Your task to perform on an android device: Clear the shopping cart on ebay.com. Search for dell xps on ebay.com, select the first entry, and add it to the cart. Image 0: 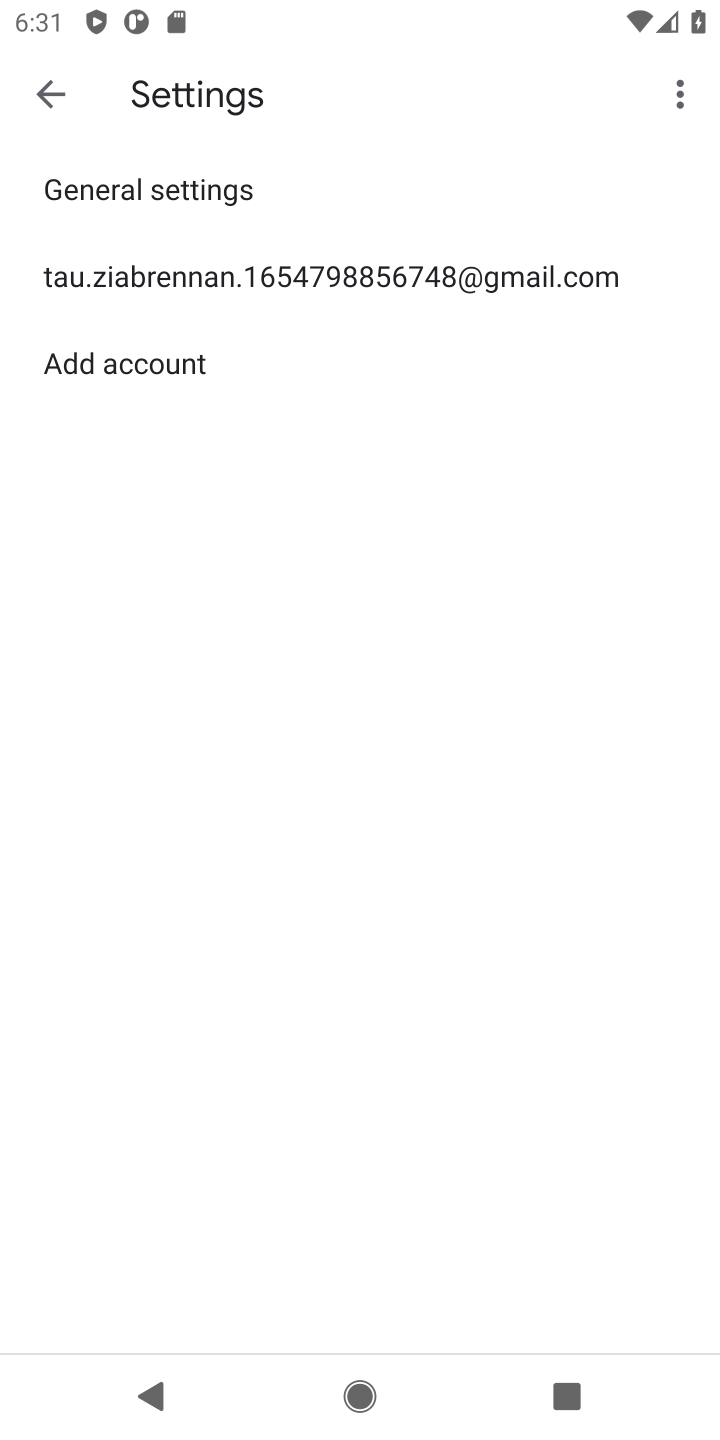
Step 0: press home button
Your task to perform on an android device: Clear the shopping cart on ebay.com. Search for dell xps on ebay.com, select the first entry, and add it to the cart. Image 1: 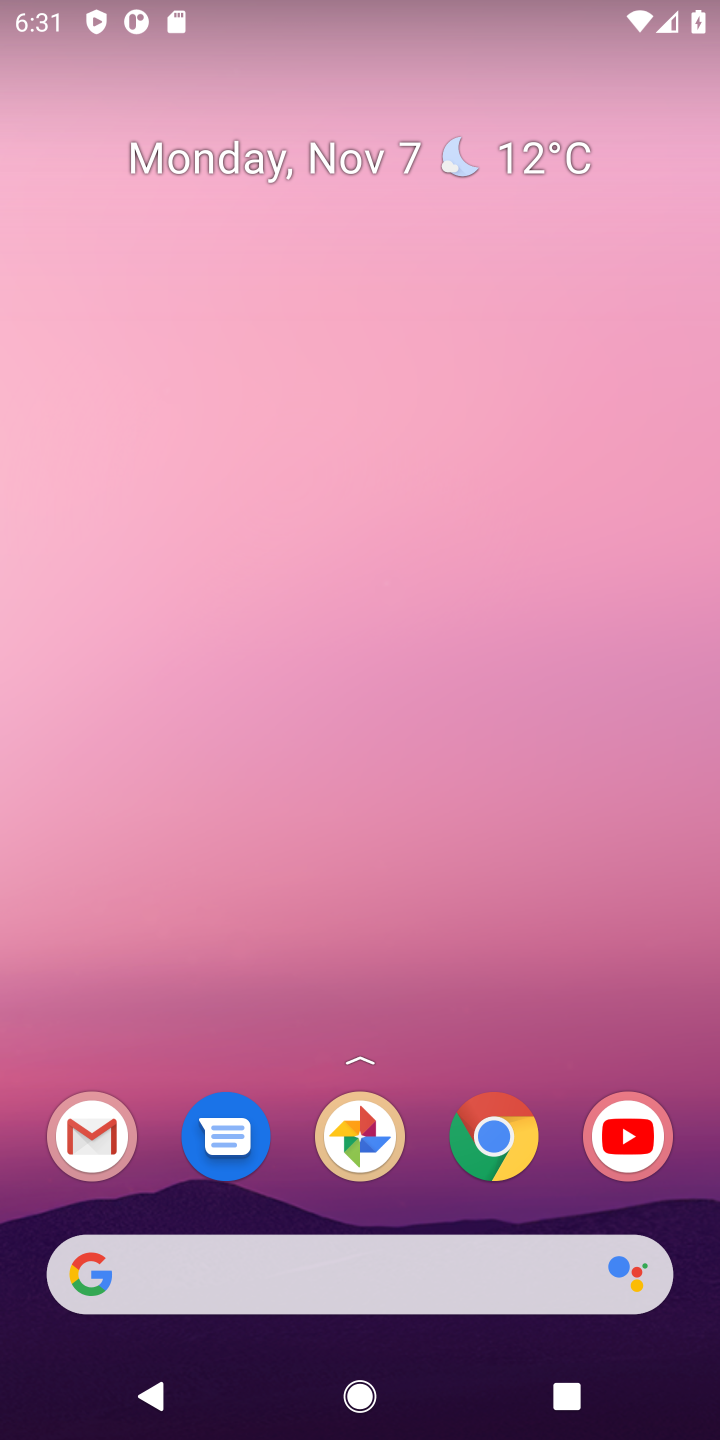
Step 1: click (253, 1267)
Your task to perform on an android device: Clear the shopping cart on ebay.com. Search for dell xps on ebay.com, select the first entry, and add it to the cart. Image 2: 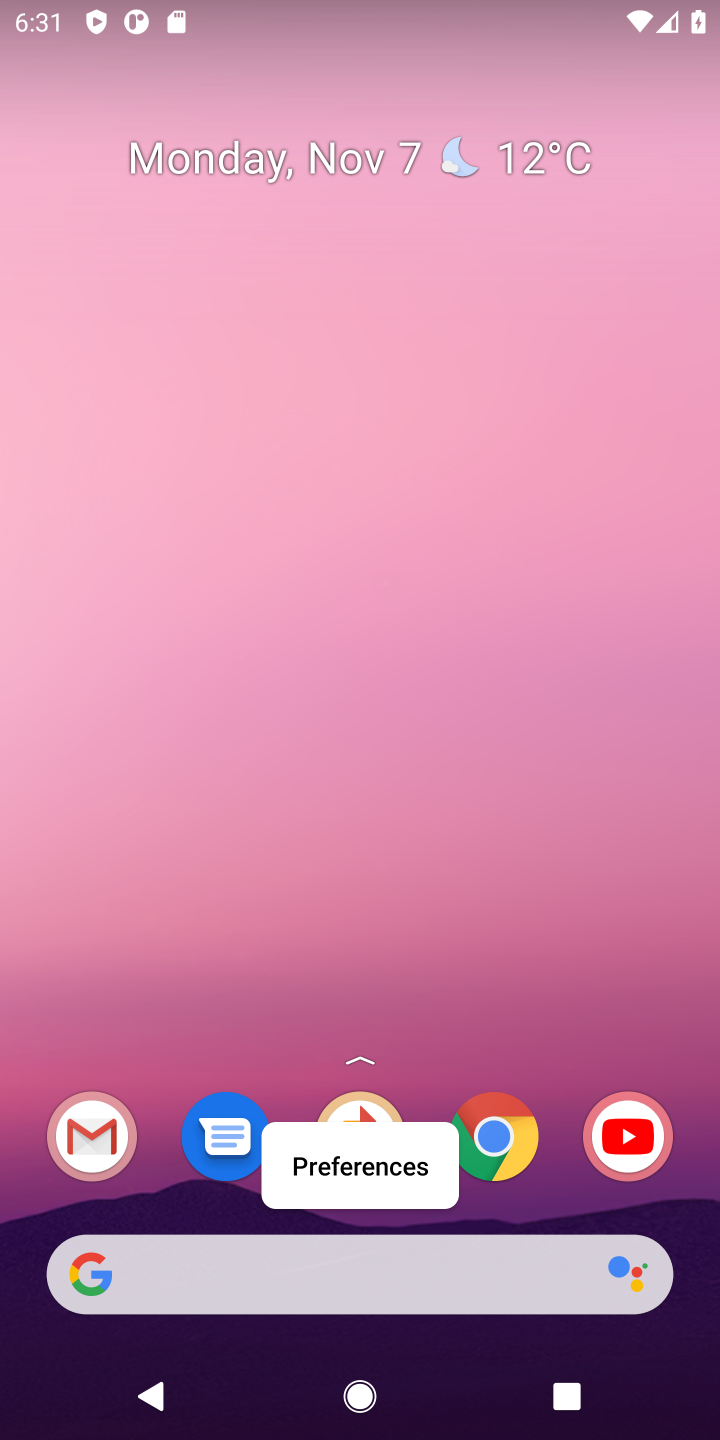
Step 2: click (214, 1271)
Your task to perform on an android device: Clear the shopping cart on ebay.com. Search for dell xps on ebay.com, select the first entry, and add it to the cart. Image 3: 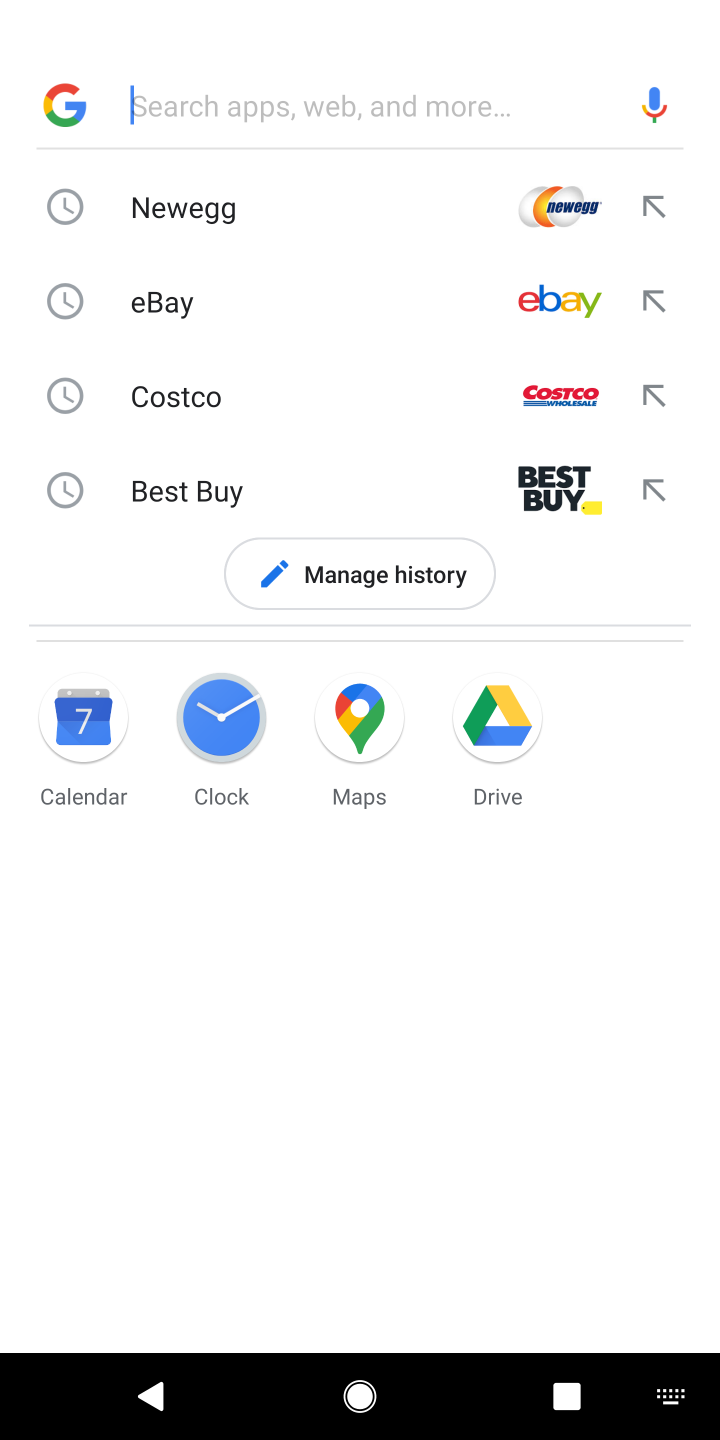
Step 3: type "ebay"
Your task to perform on an android device: Clear the shopping cart on ebay.com. Search for dell xps on ebay.com, select the first entry, and add it to the cart. Image 4: 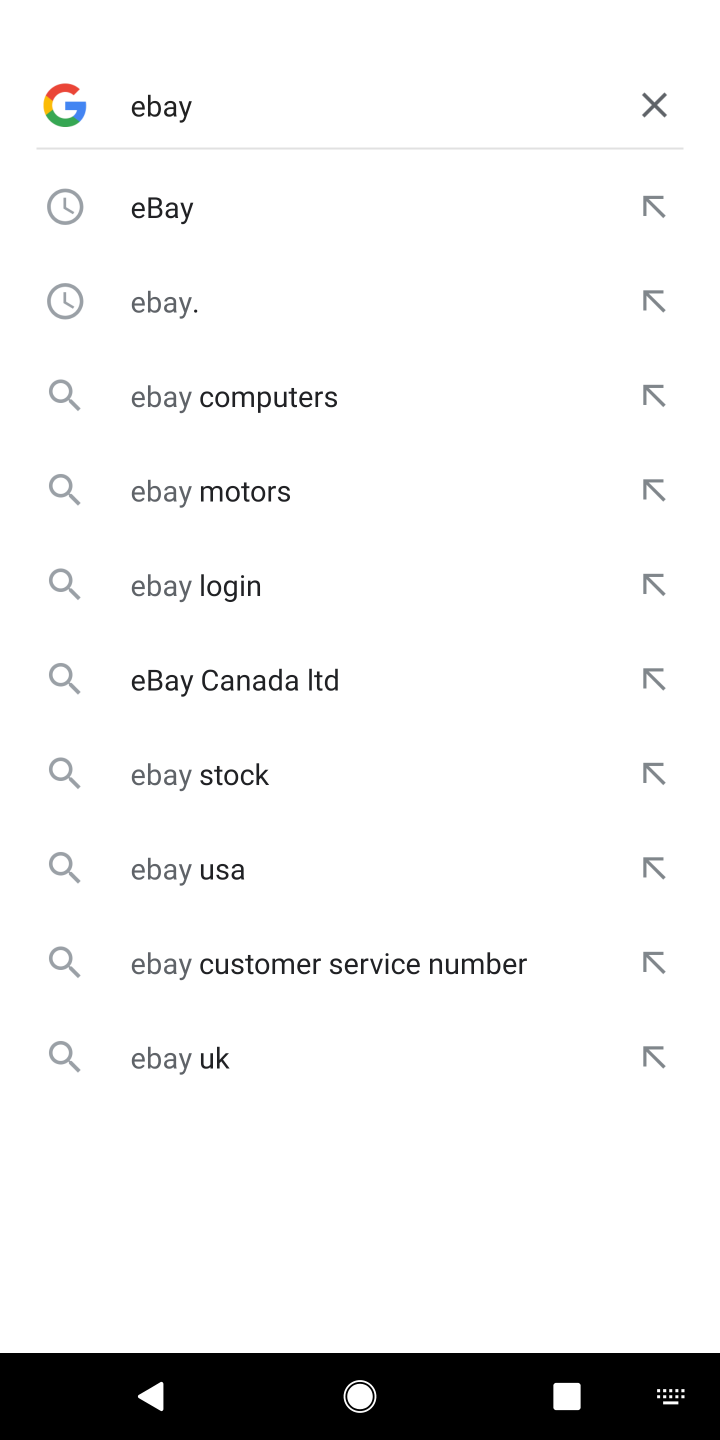
Step 4: type ""
Your task to perform on an android device: Clear the shopping cart on ebay.com. Search for dell xps on ebay.com, select the first entry, and add it to the cart. Image 5: 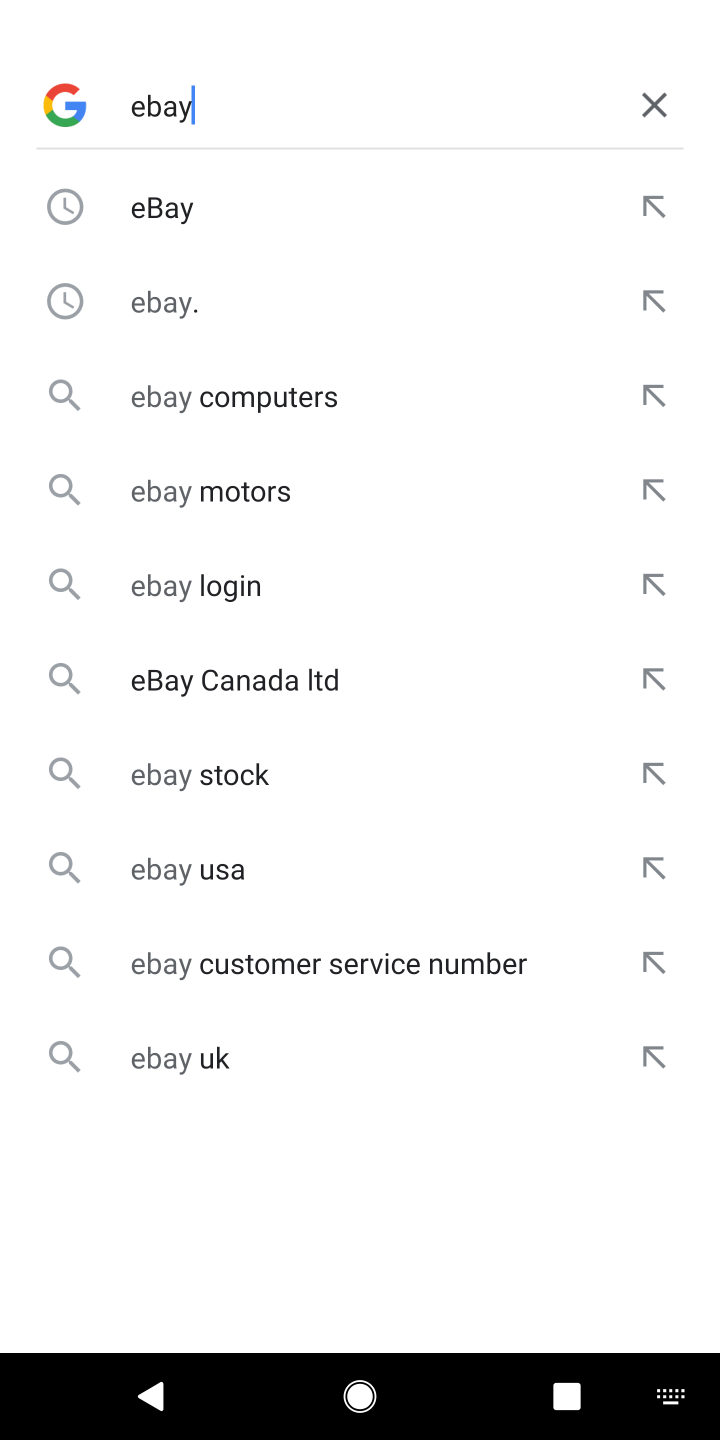
Step 5: click (148, 202)
Your task to perform on an android device: Clear the shopping cart on ebay.com. Search for dell xps on ebay.com, select the first entry, and add it to the cart. Image 6: 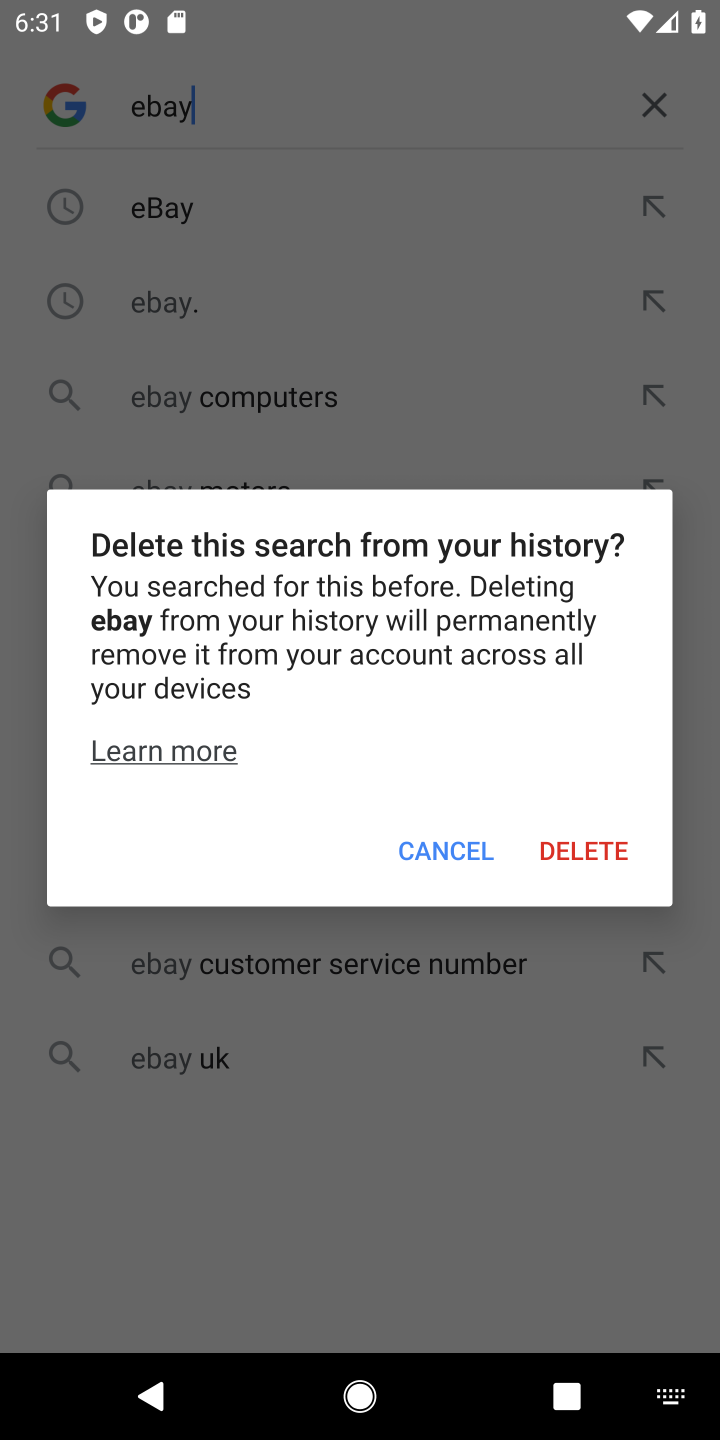
Step 6: click (441, 843)
Your task to perform on an android device: Clear the shopping cart on ebay.com. Search for dell xps on ebay.com, select the first entry, and add it to the cart. Image 7: 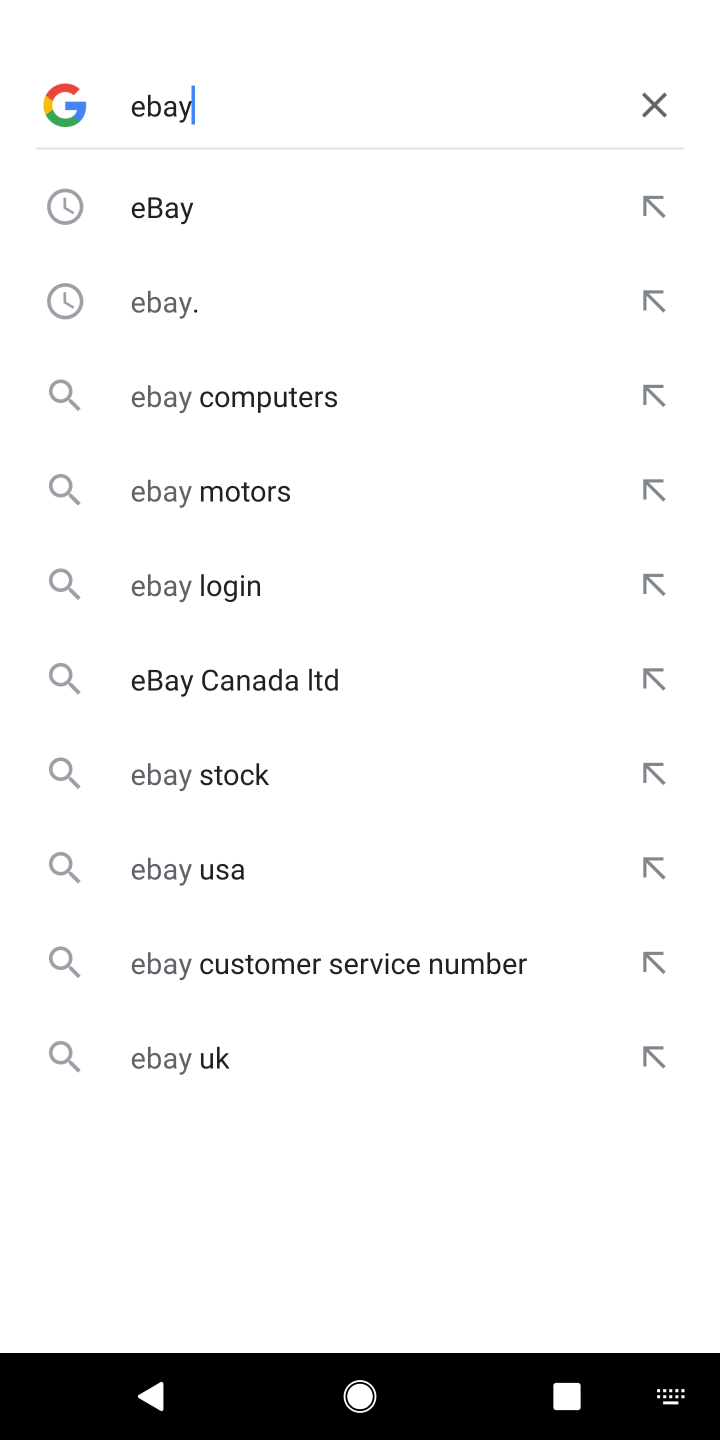
Step 7: click (165, 208)
Your task to perform on an android device: Clear the shopping cart on ebay.com. Search for dell xps on ebay.com, select the first entry, and add it to the cart. Image 8: 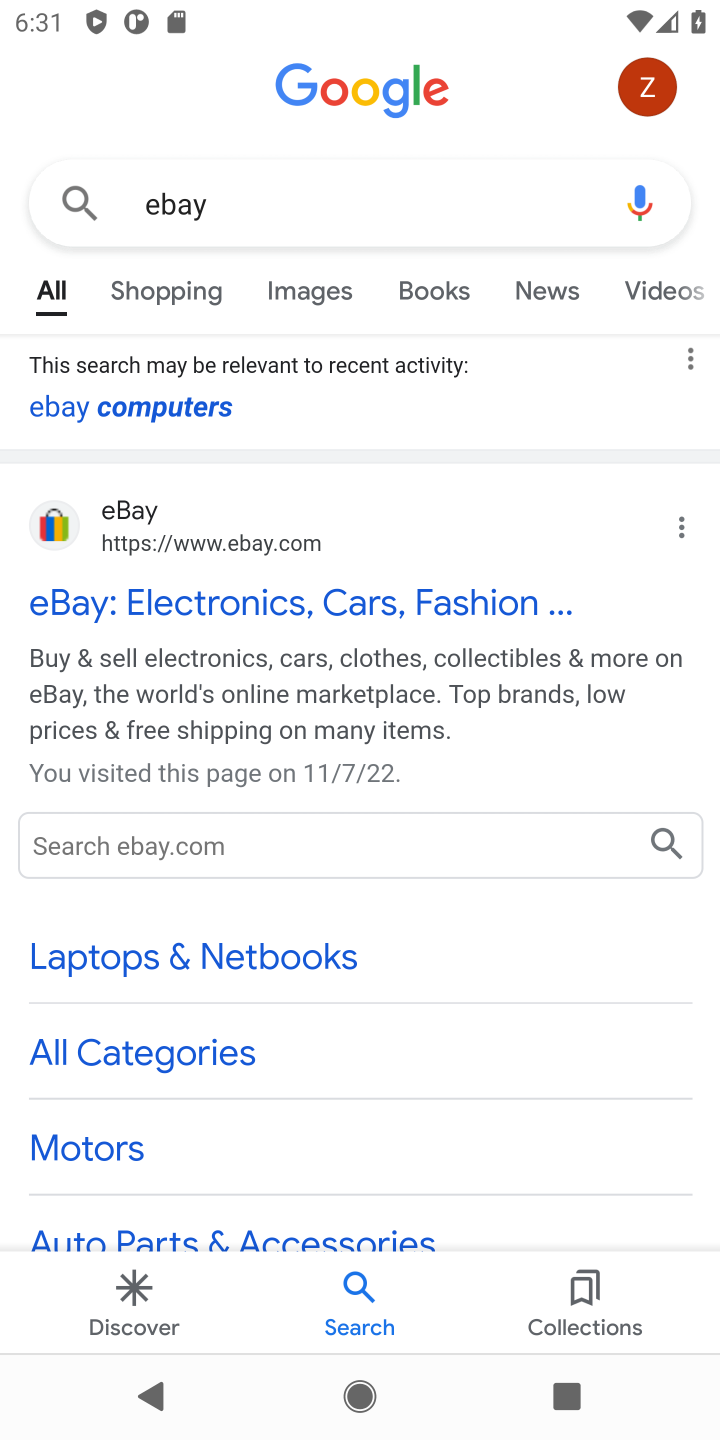
Step 8: click (132, 508)
Your task to perform on an android device: Clear the shopping cart on ebay.com. Search for dell xps on ebay.com, select the first entry, and add it to the cart. Image 9: 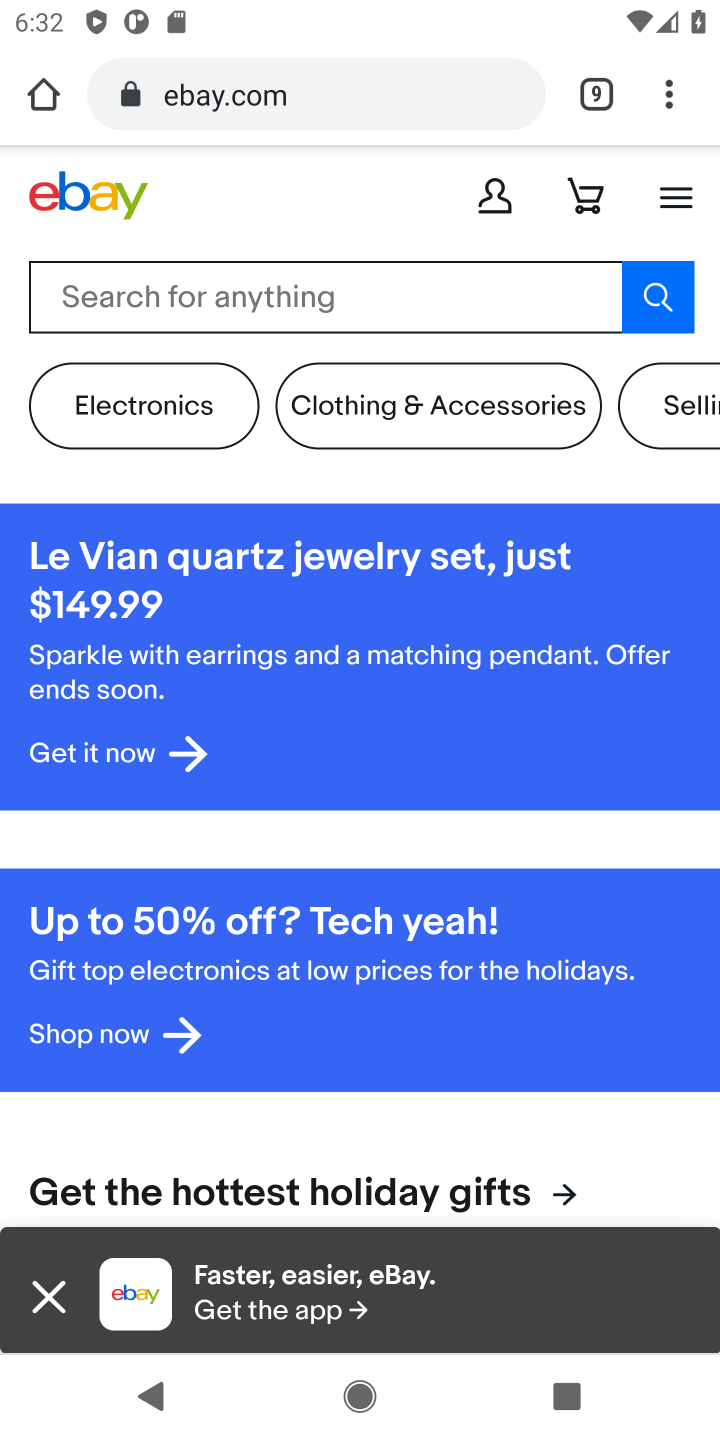
Step 9: click (233, 268)
Your task to perform on an android device: Clear the shopping cart on ebay.com. Search for dell xps on ebay.com, select the first entry, and add it to the cart. Image 10: 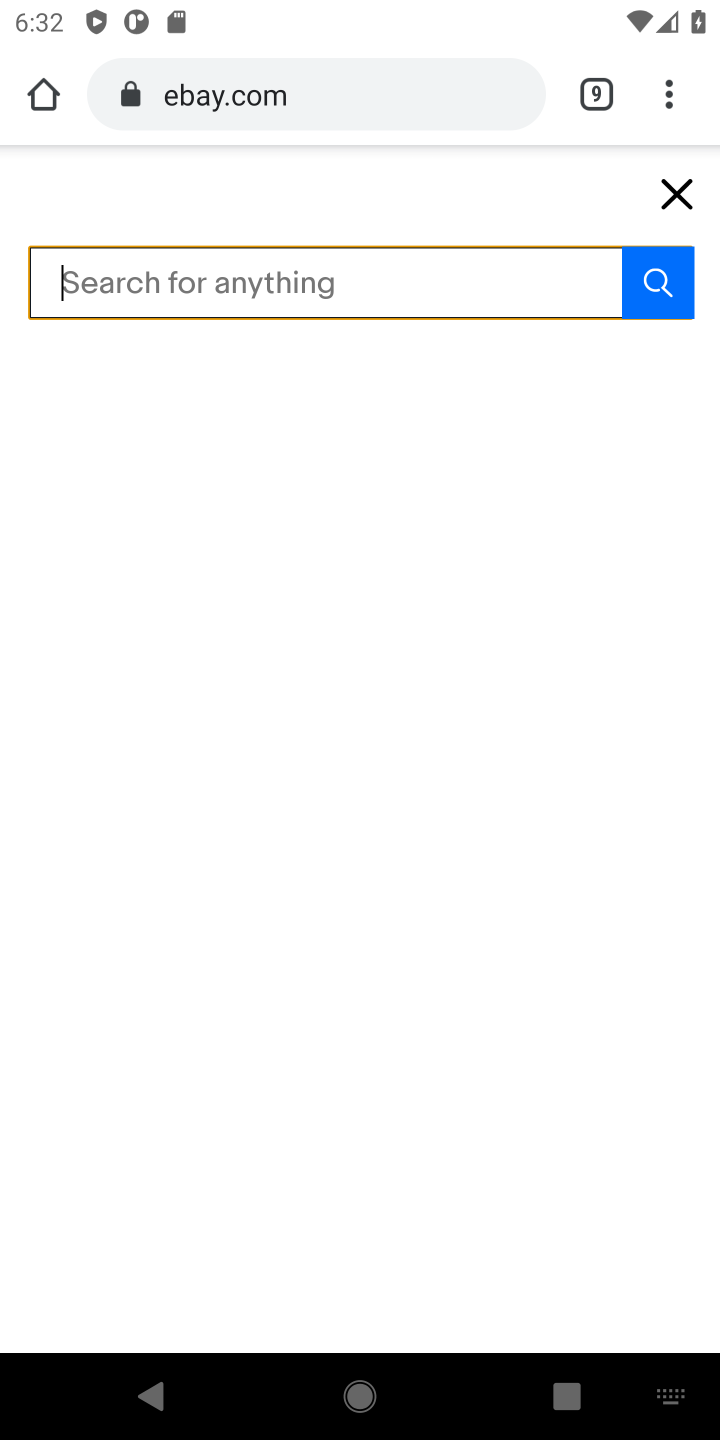
Step 10: type "dell xps"
Your task to perform on an android device: Clear the shopping cart on ebay.com. Search for dell xps on ebay.com, select the first entry, and add it to the cart. Image 11: 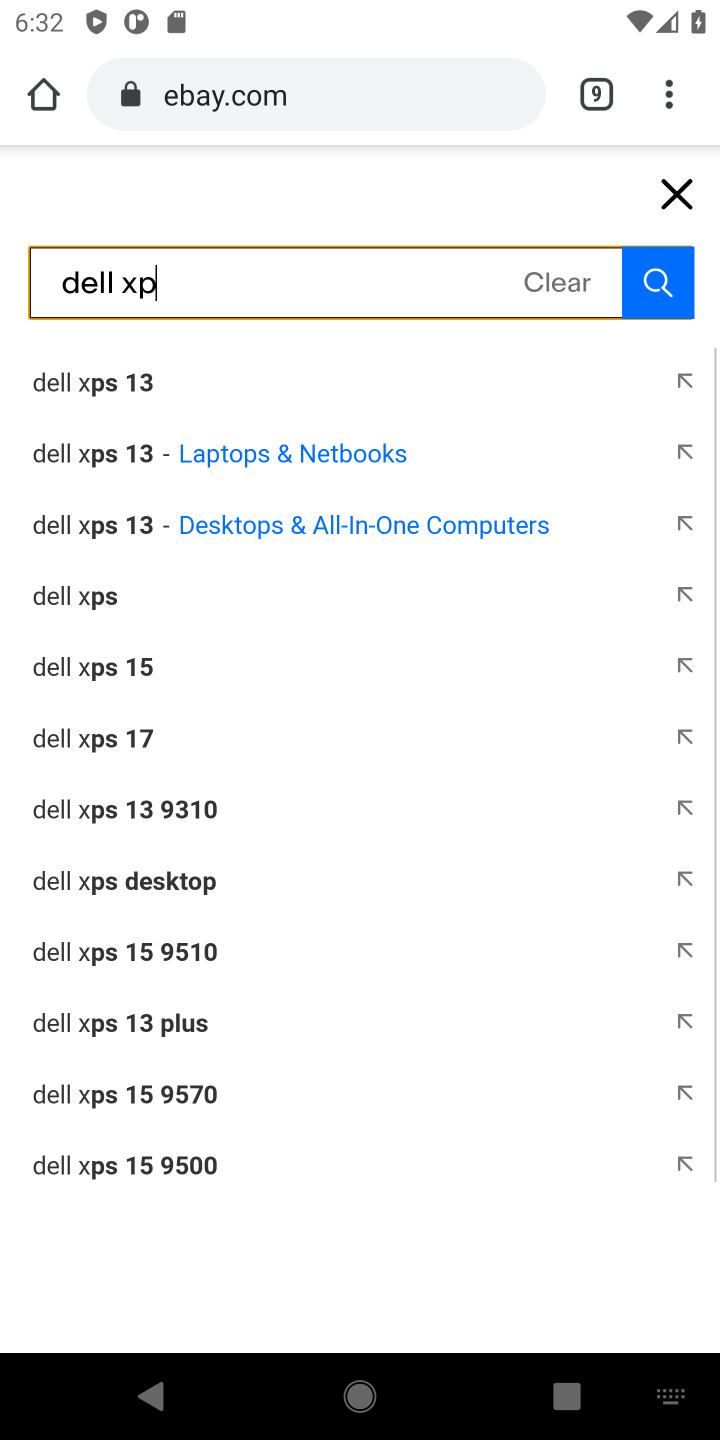
Step 11: type ""
Your task to perform on an android device: Clear the shopping cart on ebay.com. Search for dell xps on ebay.com, select the first entry, and add it to the cart. Image 12: 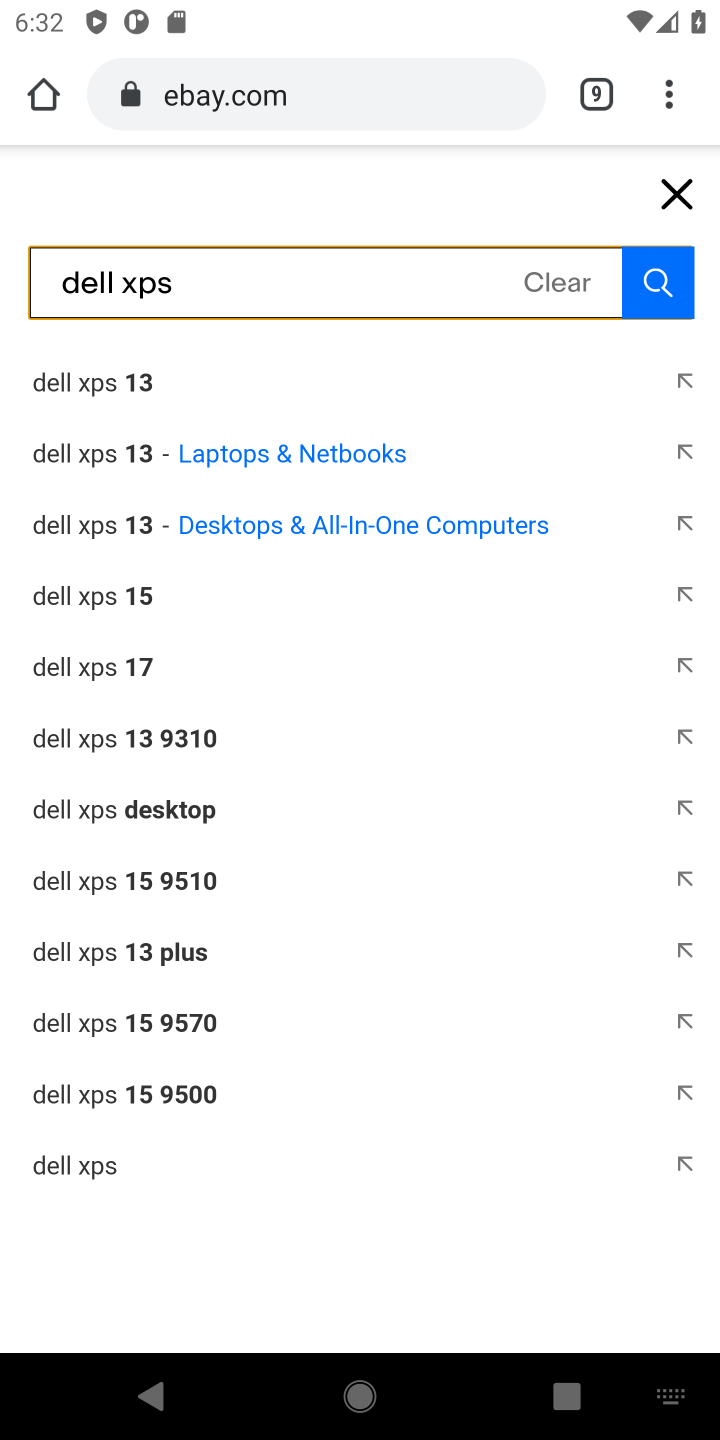
Step 12: click (78, 1165)
Your task to perform on an android device: Clear the shopping cart on ebay.com. Search for dell xps on ebay.com, select the first entry, and add it to the cart. Image 13: 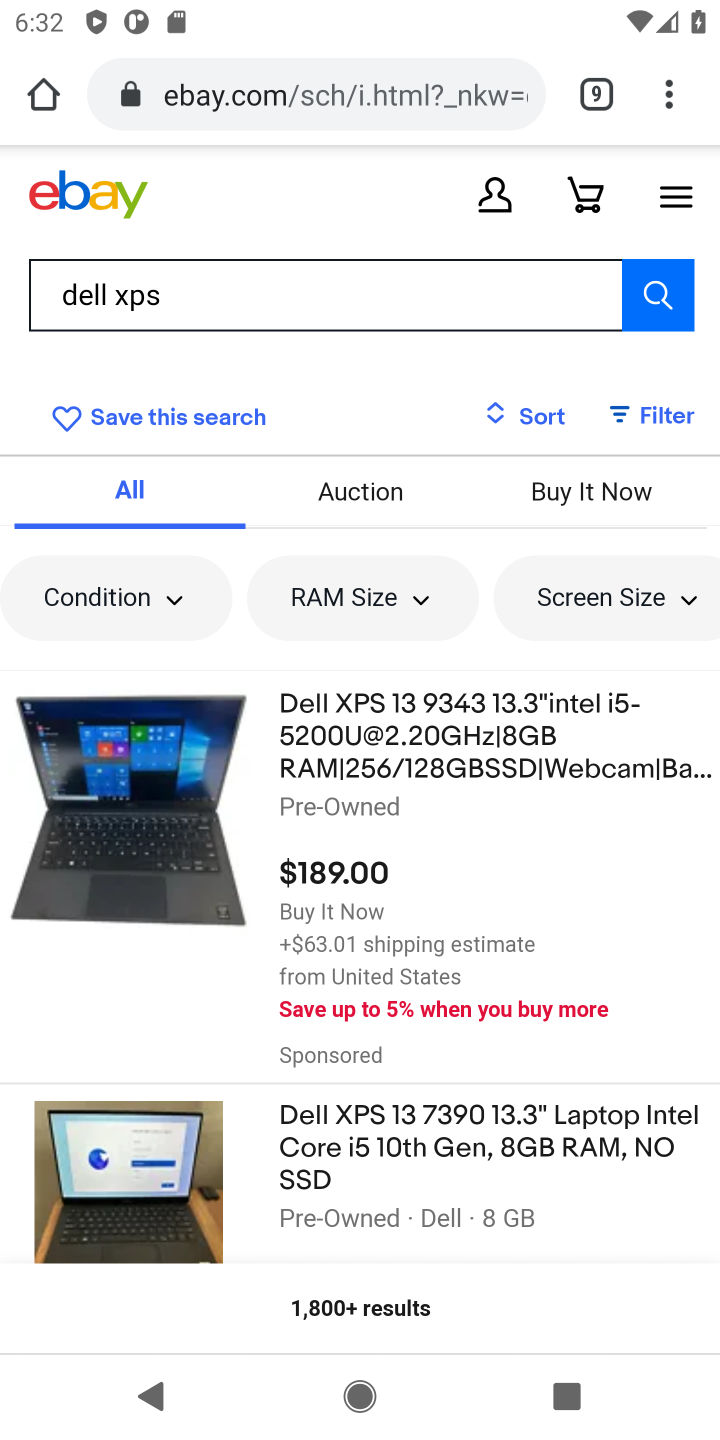
Step 13: click (359, 713)
Your task to perform on an android device: Clear the shopping cart on ebay.com. Search for dell xps on ebay.com, select the first entry, and add it to the cart. Image 14: 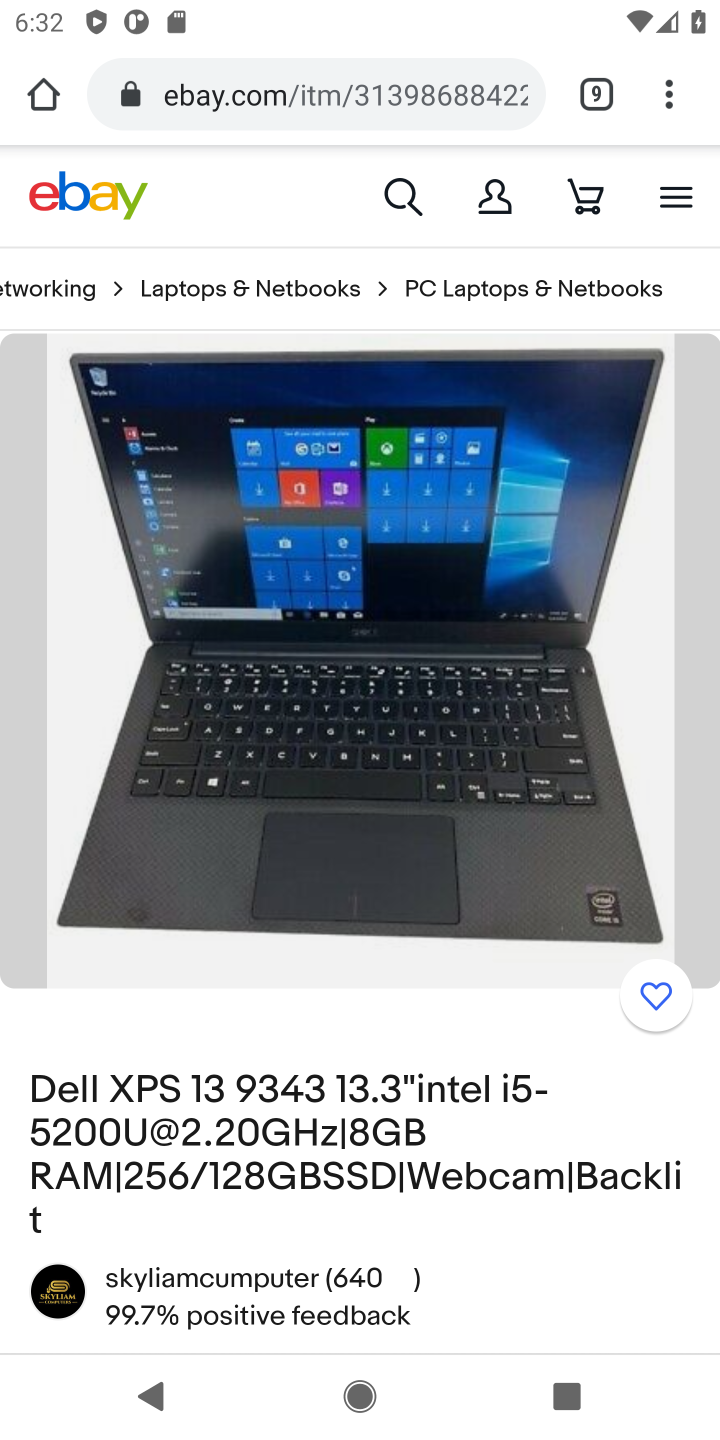
Step 14: drag from (577, 1046) to (524, 483)
Your task to perform on an android device: Clear the shopping cart on ebay.com. Search for dell xps on ebay.com, select the first entry, and add it to the cart. Image 15: 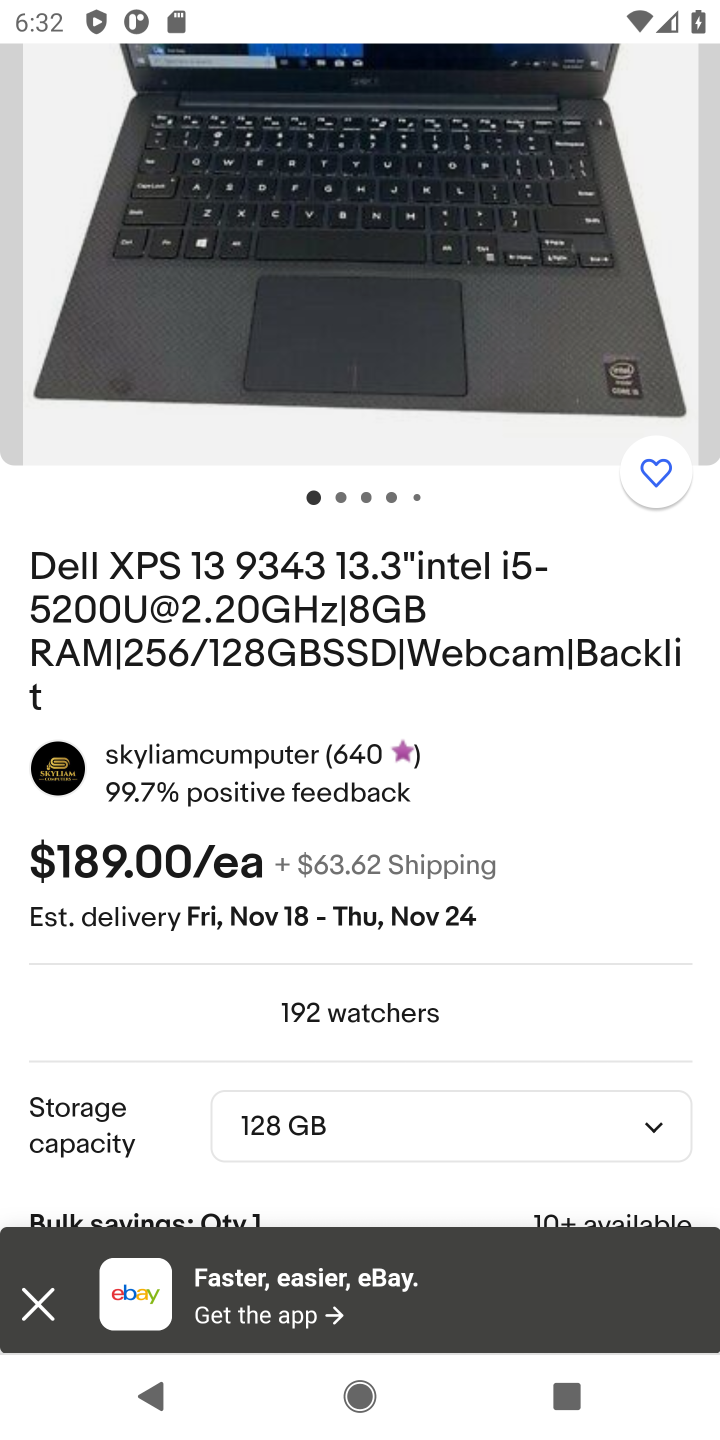
Step 15: drag from (533, 887) to (505, 520)
Your task to perform on an android device: Clear the shopping cart on ebay.com. Search for dell xps on ebay.com, select the first entry, and add it to the cart. Image 16: 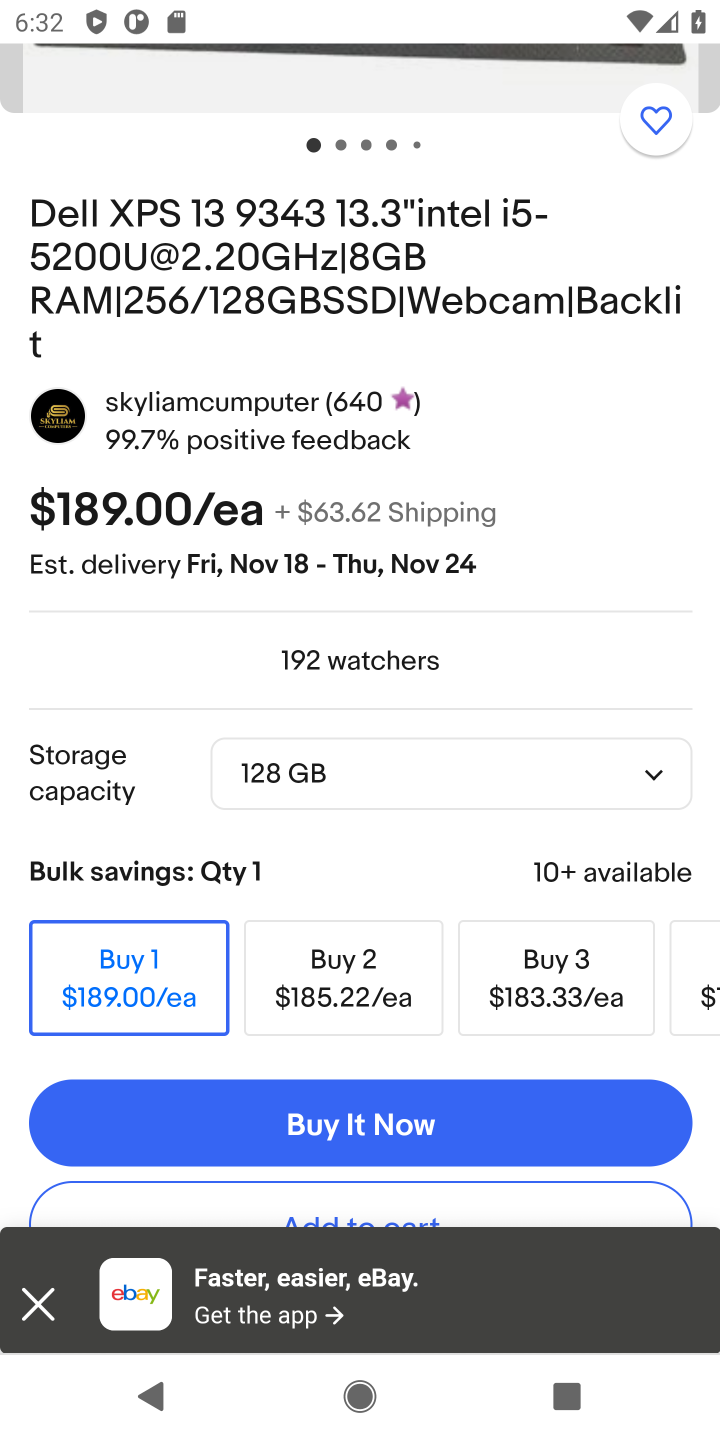
Step 16: drag from (537, 770) to (476, 303)
Your task to perform on an android device: Clear the shopping cart on ebay.com. Search for dell xps on ebay.com, select the first entry, and add it to the cart. Image 17: 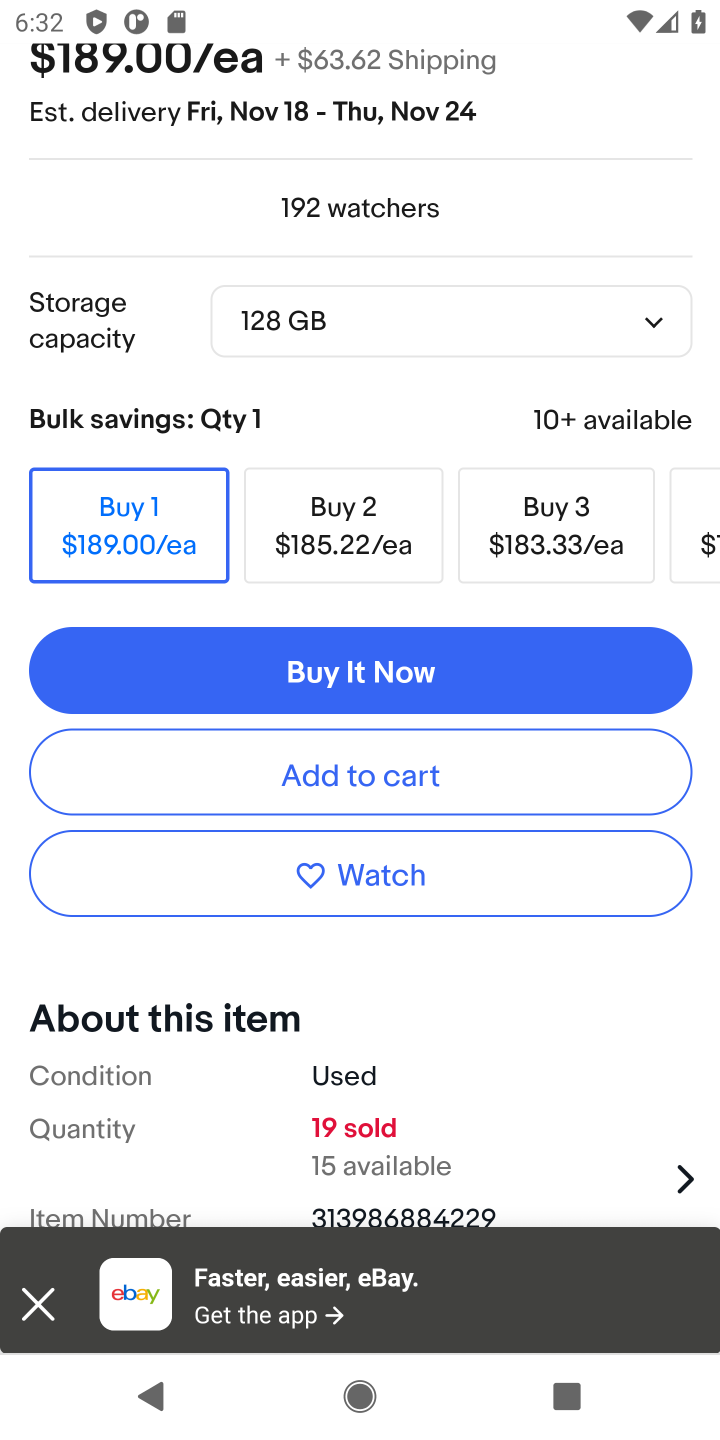
Step 17: click (351, 770)
Your task to perform on an android device: Clear the shopping cart on ebay.com. Search for dell xps on ebay.com, select the first entry, and add it to the cart. Image 18: 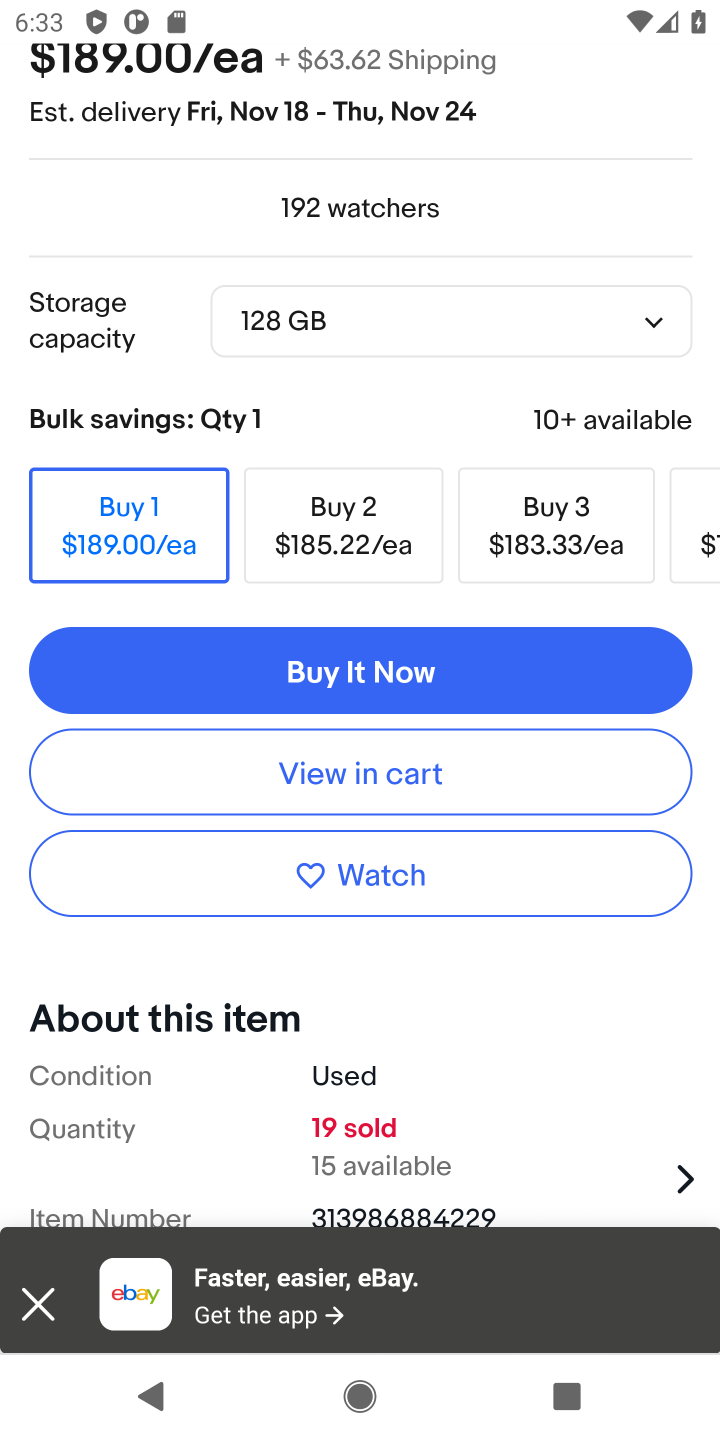
Step 18: task complete